Your task to perform on an android device: See recent photos Image 0: 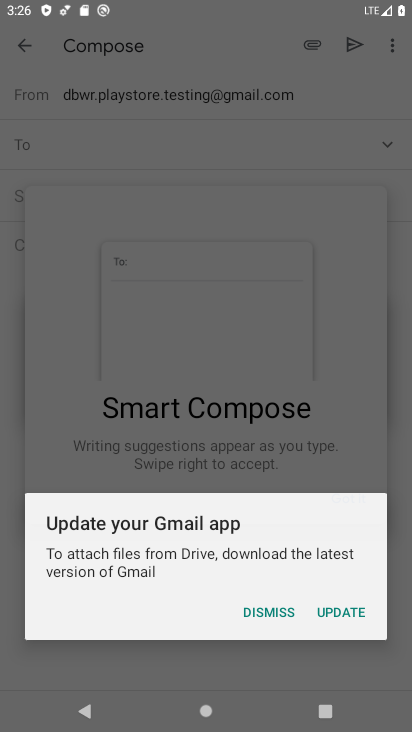
Step 0: press home button
Your task to perform on an android device: See recent photos Image 1: 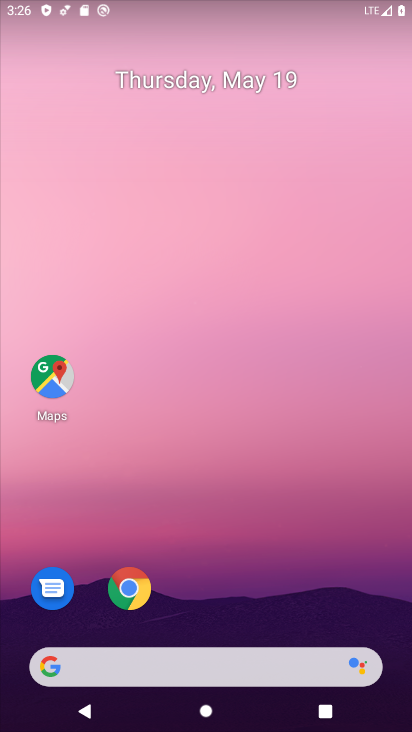
Step 1: drag from (266, 245) to (291, 175)
Your task to perform on an android device: See recent photos Image 2: 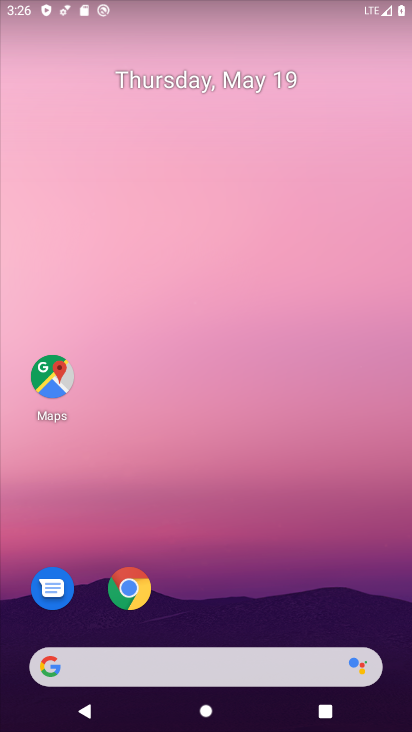
Step 2: drag from (189, 674) to (300, 1)
Your task to perform on an android device: See recent photos Image 3: 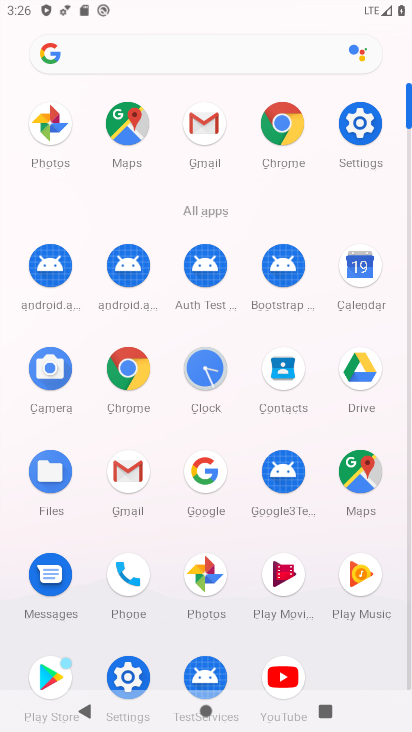
Step 3: click (213, 579)
Your task to perform on an android device: See recent photos Image 4: 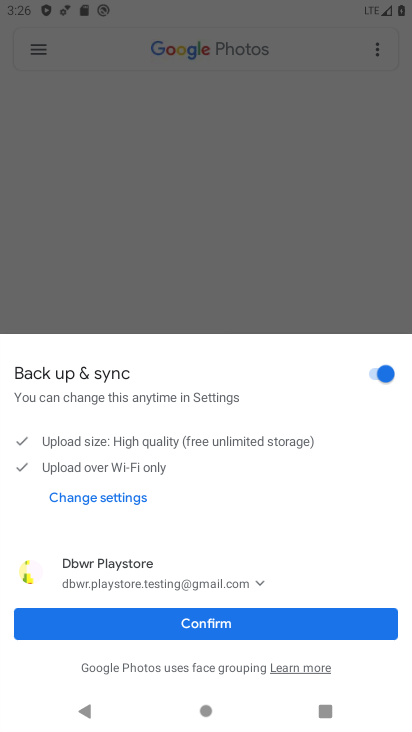
Step 4: click (208, 624)
Your task to perform on an android device: See recent photos Image 5: 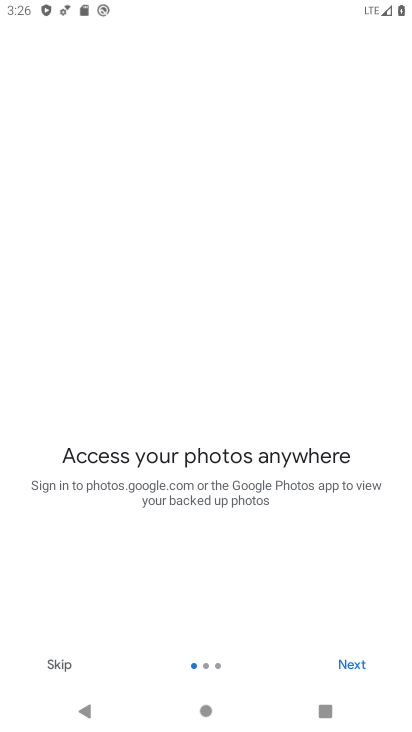
Step 5: click (366, 659)
Your task to perform on an android device: See recent photos Image 6: 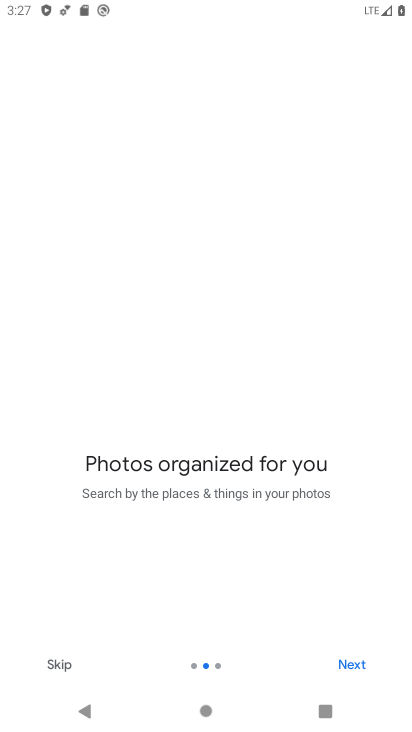
Step 6: click (353, 650)
Your task to perform on an android device: See recent photos Image 7: 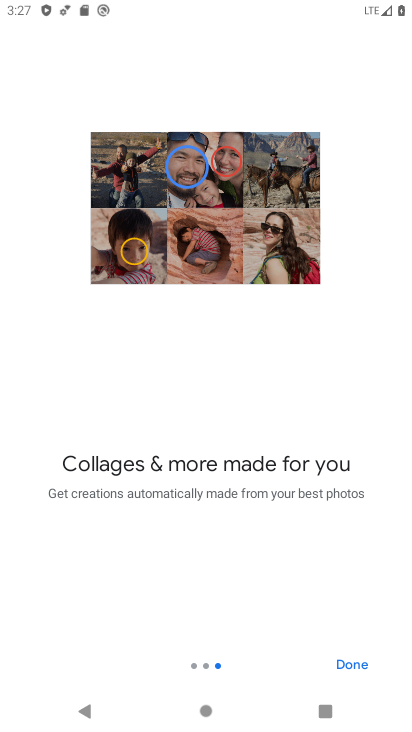
Step 7: click (353, 658)
Your task to perform on an android device: See recent photos Image 8: 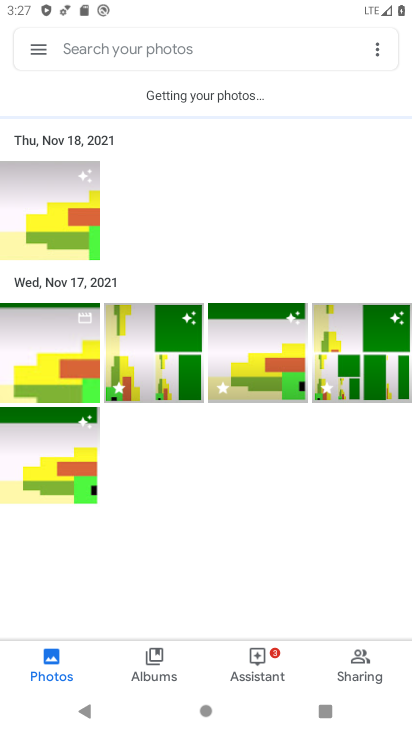
Step 8: task complete